Your task to perform on an android device: turn notification dots on Image 0: 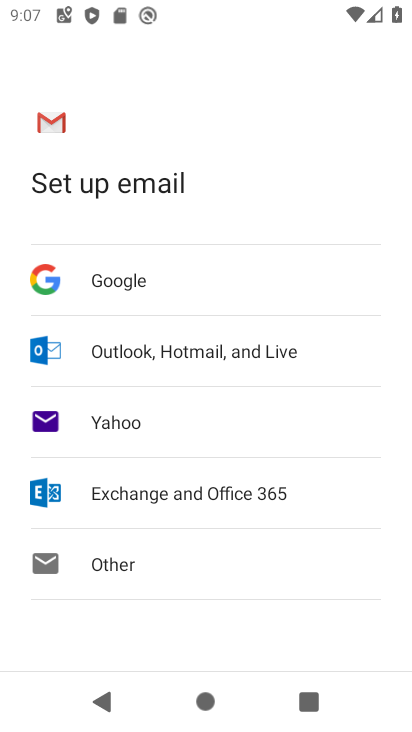
Step 0: press home button
Your task to perform on an android device: turn notification dots on Image 1: 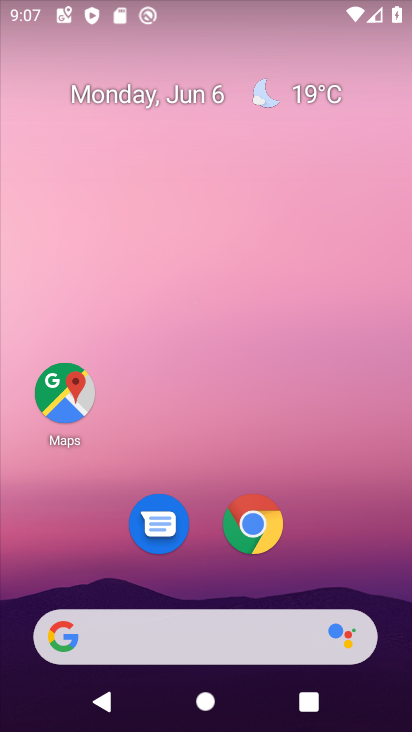
Step 1: drag from (332, 515) to (337, 53)
Your task to perform on an android device: turn notification dots on Image 2: 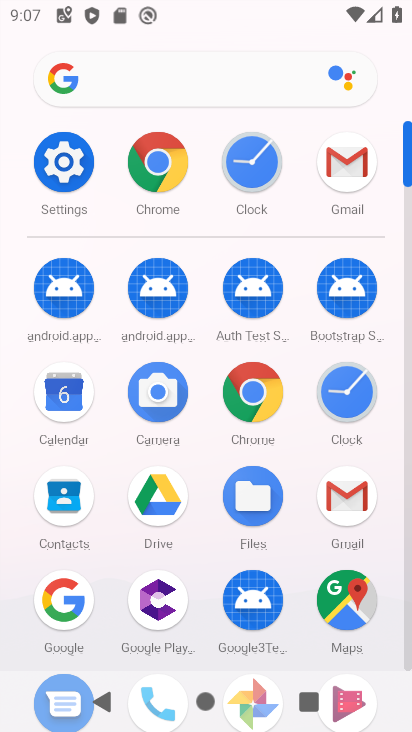
Step 2: click (68, 167)
Your task to perform on an android device: turn notification dots on Image 3: 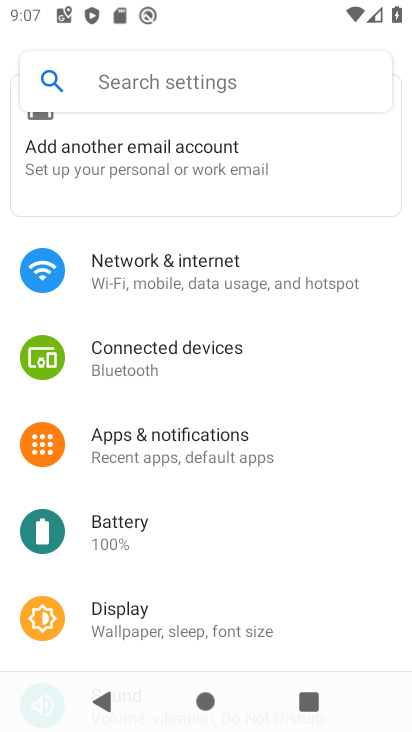
Step 3: click (257, 443)
Your task to perform on an android device: turn notification dots on Image 4: 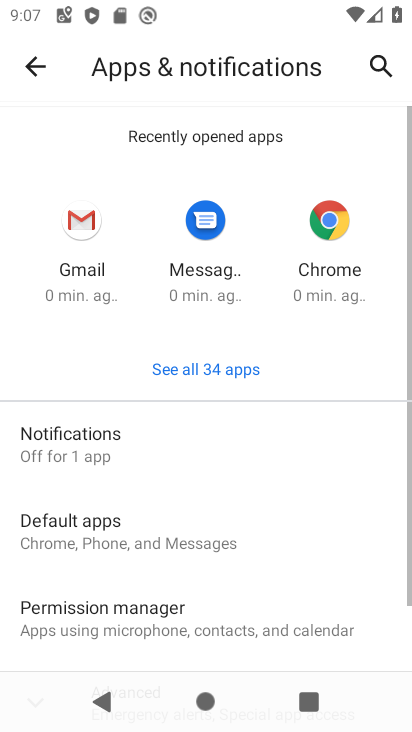
Step 4: click (208, 454)
Your task to perform on an android device: turn notification dots on Image 5: 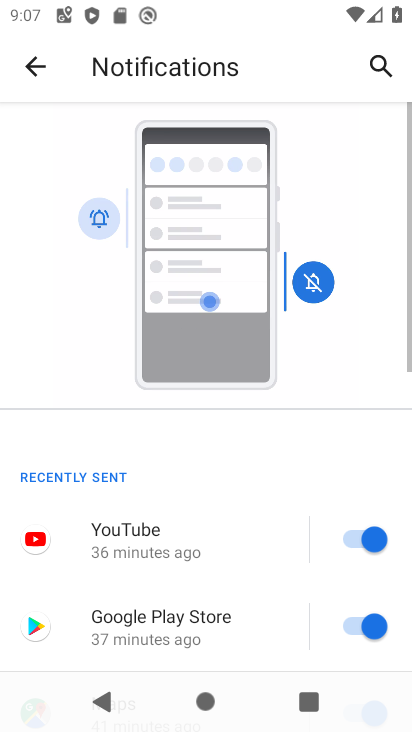
Step 5: drag from (237, 602) to (285, 88)
Your task to perform on an android device: turn notification dots on Image 6: 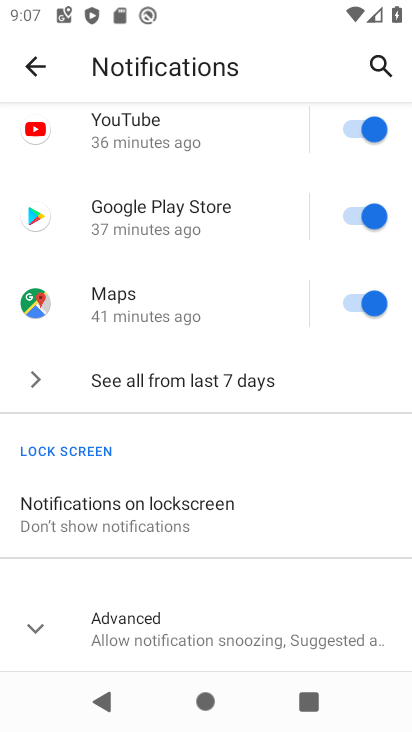
Step 6: click (28, 622)
Your task to perform on an android device: turn notification dots on Image 7: 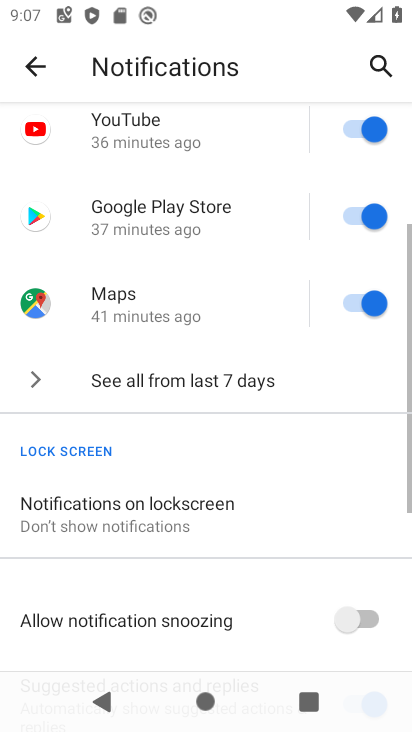
Step 7: task complete